Your task to perform on an android device: Open display settings Image 0: 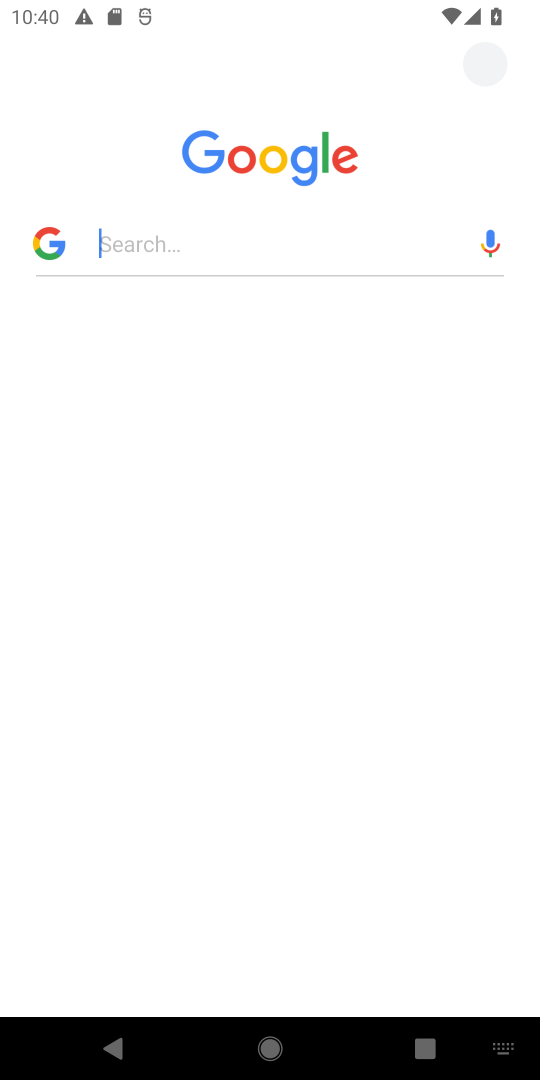
Step 0: press home button
Your task to perform on an android device: Open display settings Image 1: 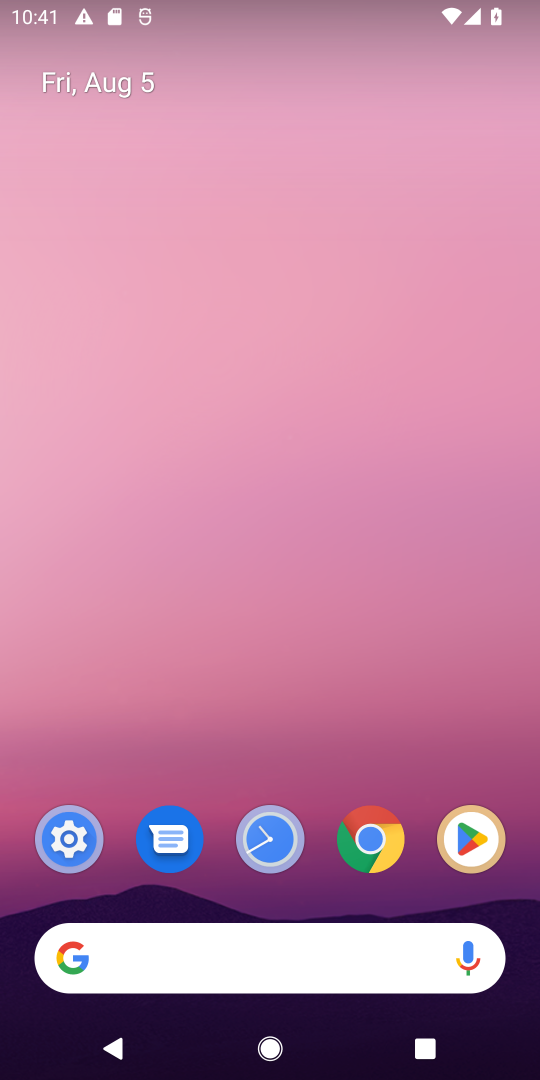
Step 1: drag from (300, 595) to (322, 105)
Your task to perform on an android device: Open display settings Image 2: 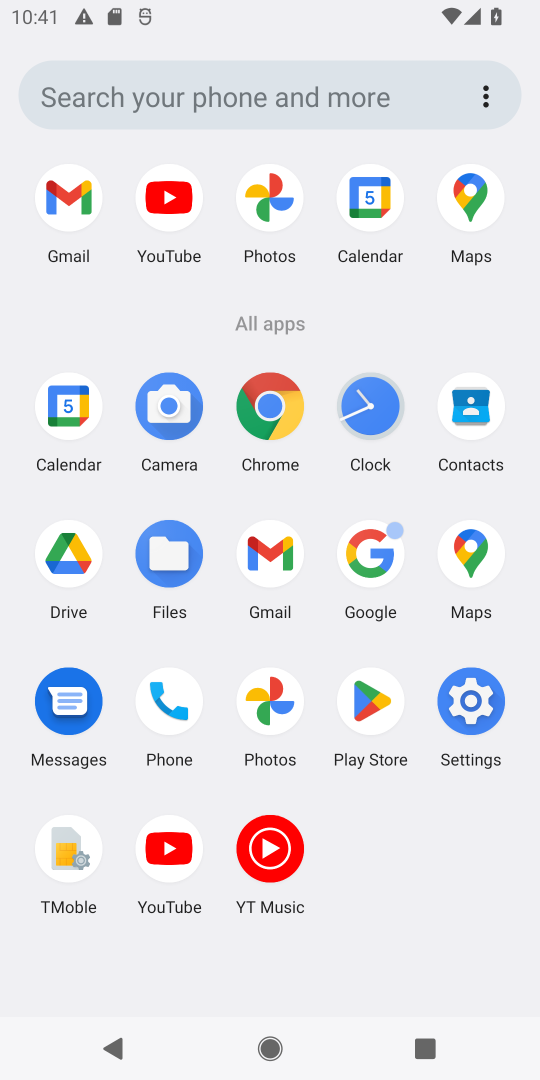
Step 2: click (469, 694)
Your task to perform on an android device: Open display settings Image 3: 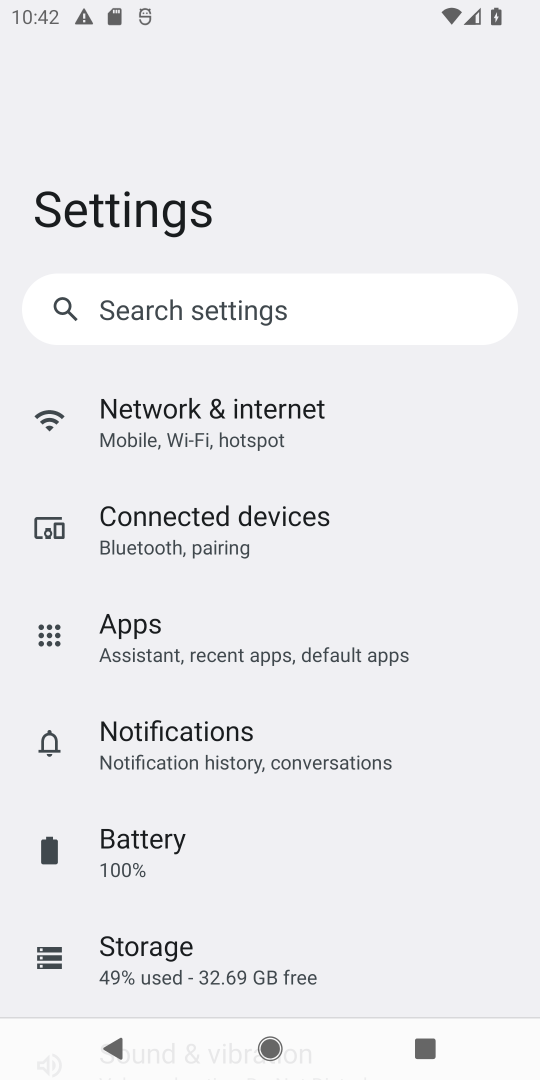
Step 3: drag from (236, 939) to (274, 231)
Your task to perform on an android device: Open display settings Image 4: 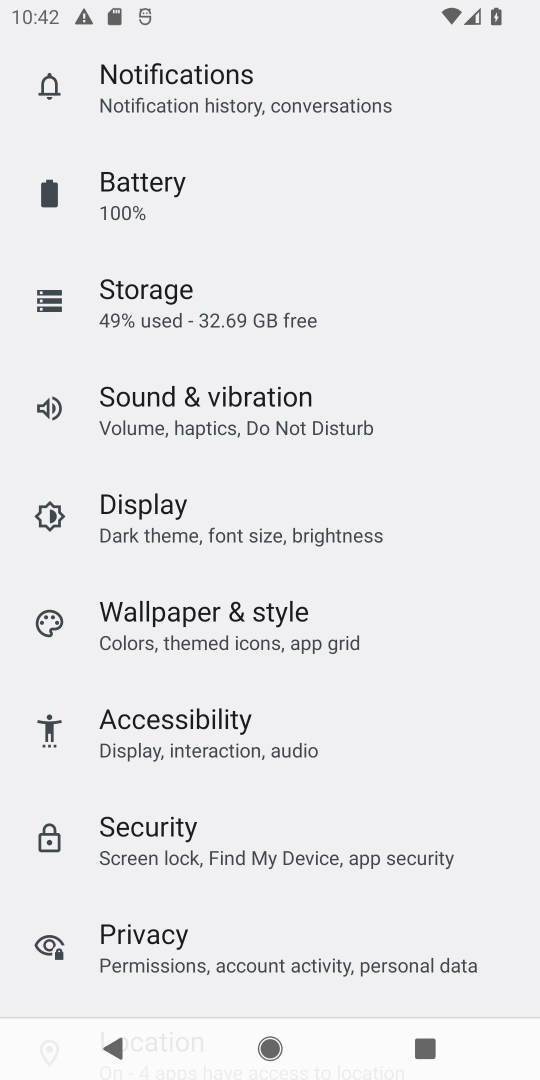
Step 4: click (215, 506)
Your task to perform on an android device: Open display settings Image 5: 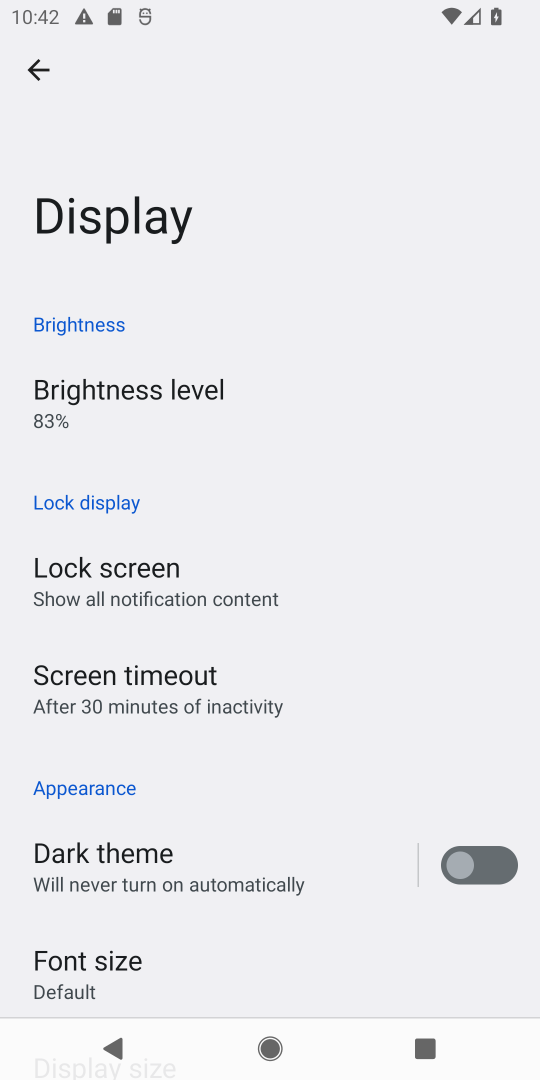
Step 5: task complete